Your task to perform on an android device: Open CNN.com Image 0: 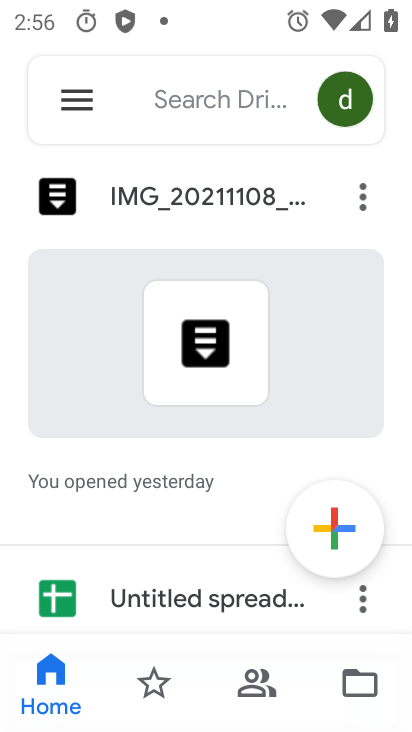
Step 0: press home button
Your task to perform on an android device: Open CNN.com Image 1: 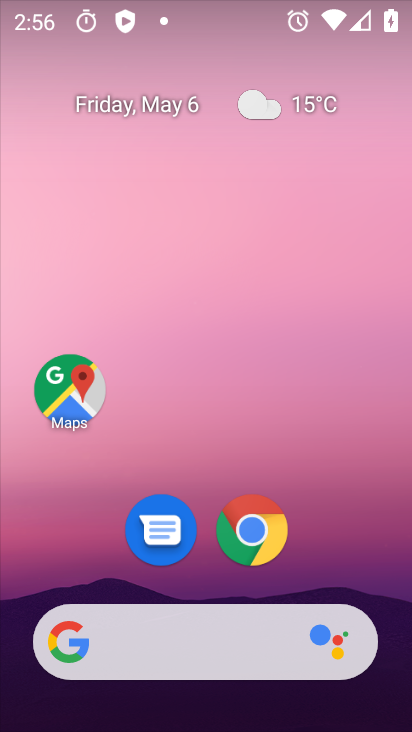
Step 1: click (263, 523)
Your task to perform on an android device: Open CNN.com Image 2: 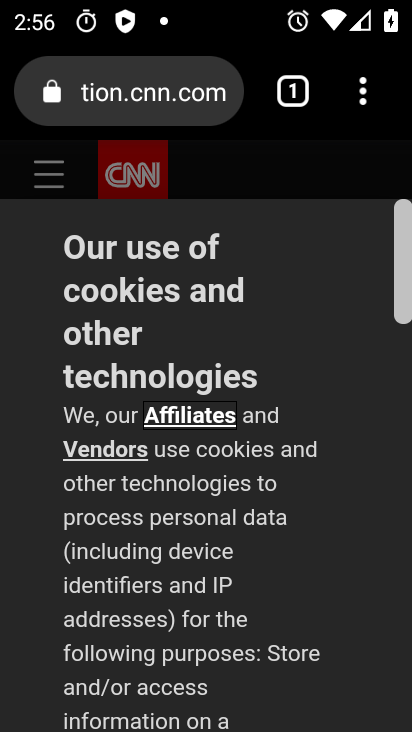
Step 2: task complete